Your task to perform on an android device: Open the web browser Image 0: 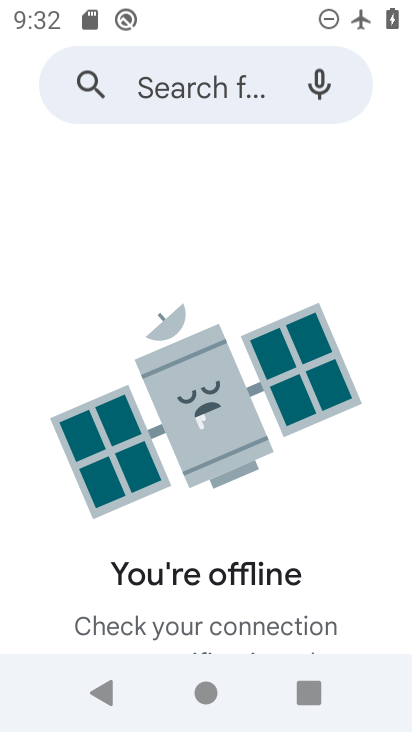
Step 0: press home button
Your task to perform on an android device: Open the web browser Image 1: 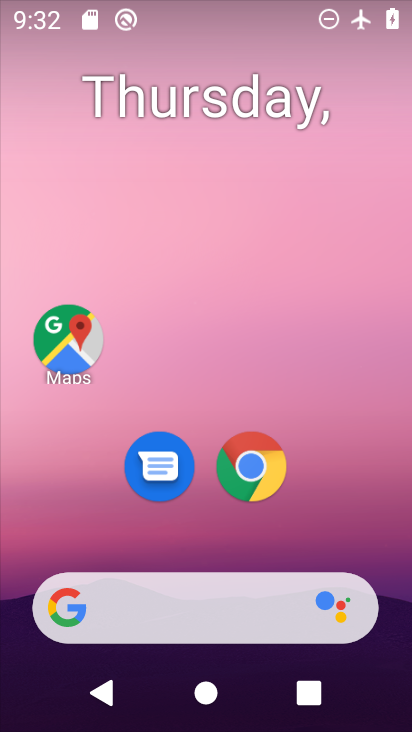
Step 1: drag from (247, 587) to (362, 12)
Your task to perform on an android device: Open the web browser Image 2: 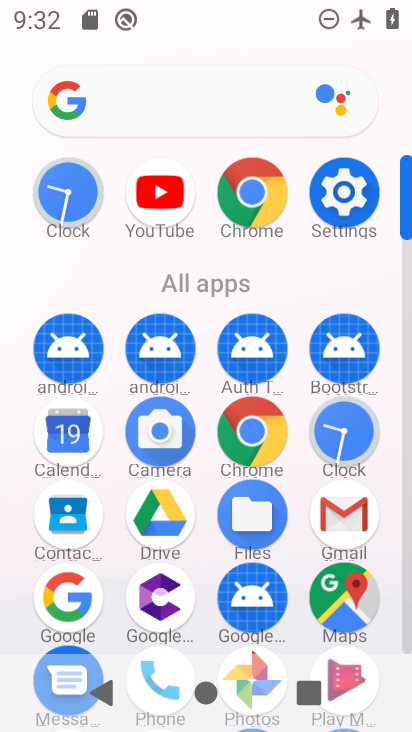
Step 2: click (262, 419)
Your task to perform on an android device: Open the web browser Image 3: 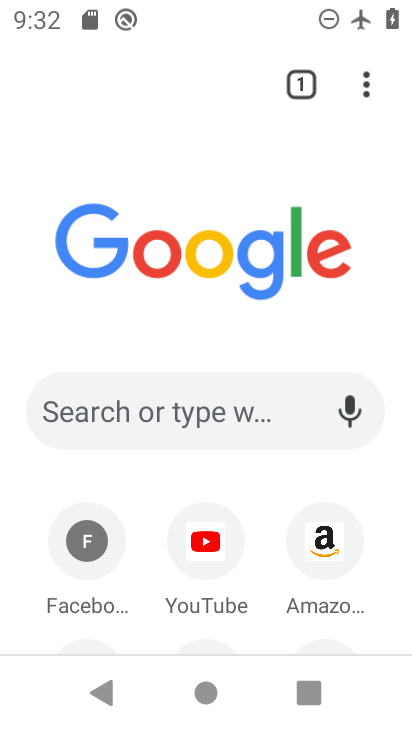
Step 3: task complete